Your task to perform on an android device: Go to Google Image 0: 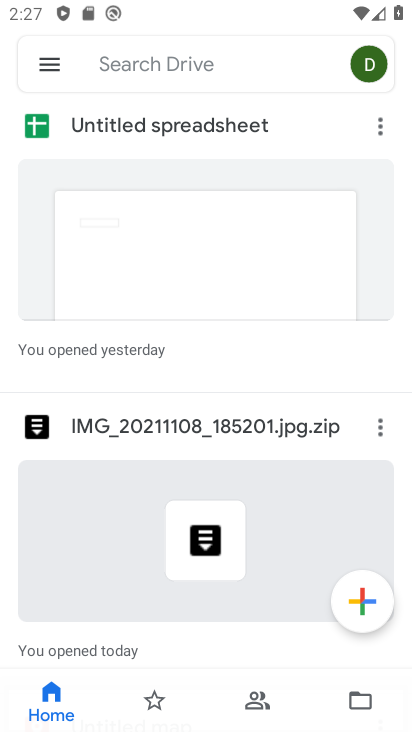
Step 0: press home button
Your task to perform on an android device: Go to Google Image 1: 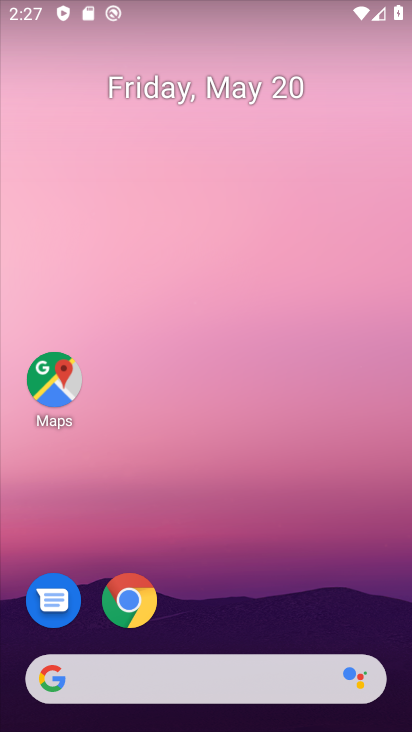
Step 1: drag from (370, 601) to (385, 263)
Your task to perform on an android device: Go to Google Image 2: 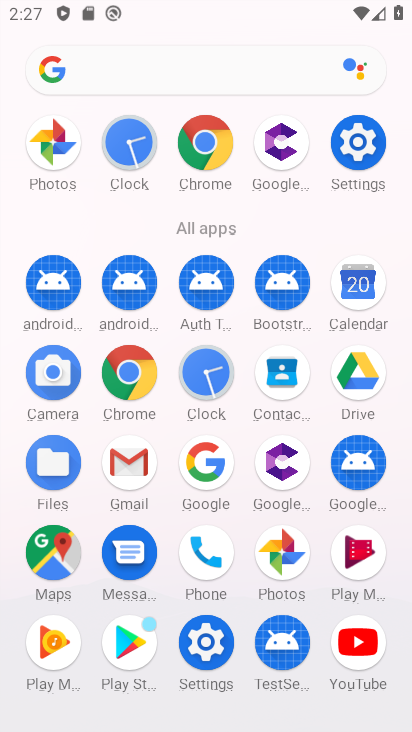
Step 2: click (213, 487)
Your task to perform on an android device: Go to Google Image 3: 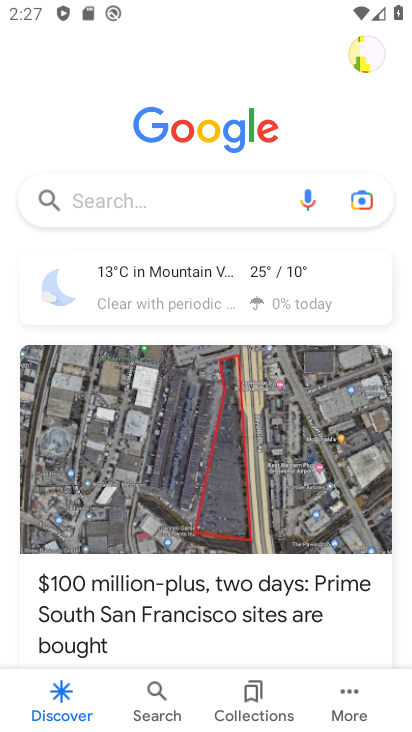
Step 3: task complete